Your task to perform on an android device: Add "alienware area 51" to the cart on costco Image 0: 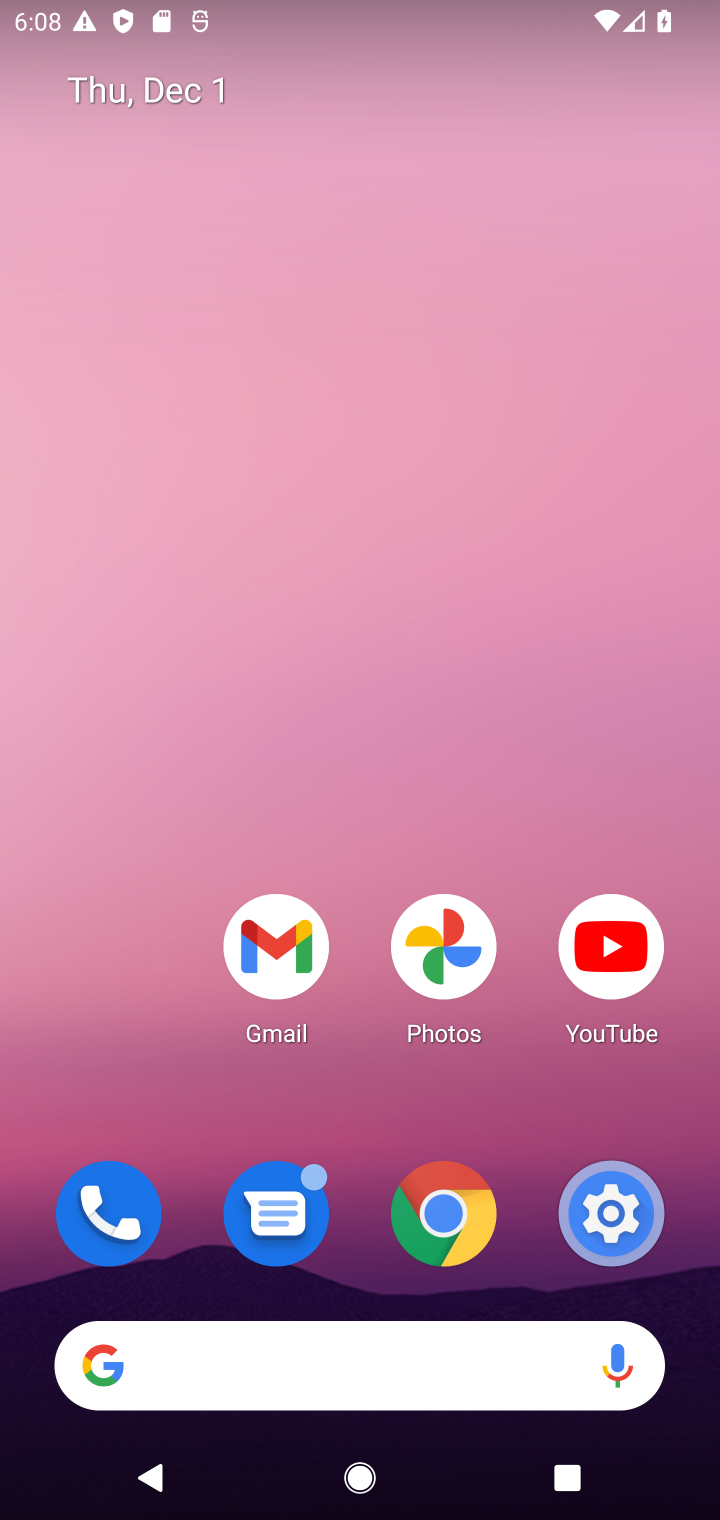
Step 0: click (426, 1368)
Your task to perform on an android device: Add "alienware area 51" to the cart on costco Image 1: 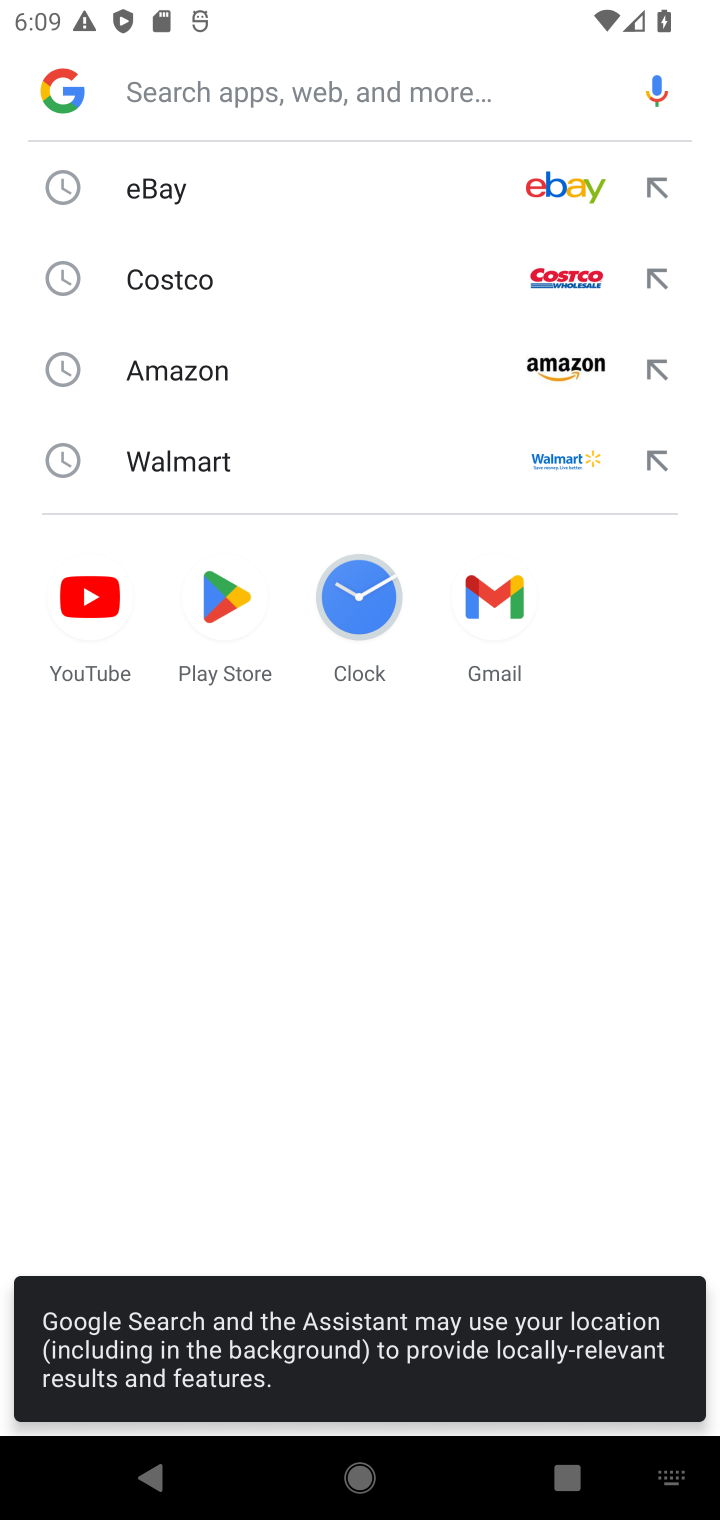
Step 1: click (229, 296)
Your task to perform on an android device: Add "alienware area 51" to the cart on costco Image 2: 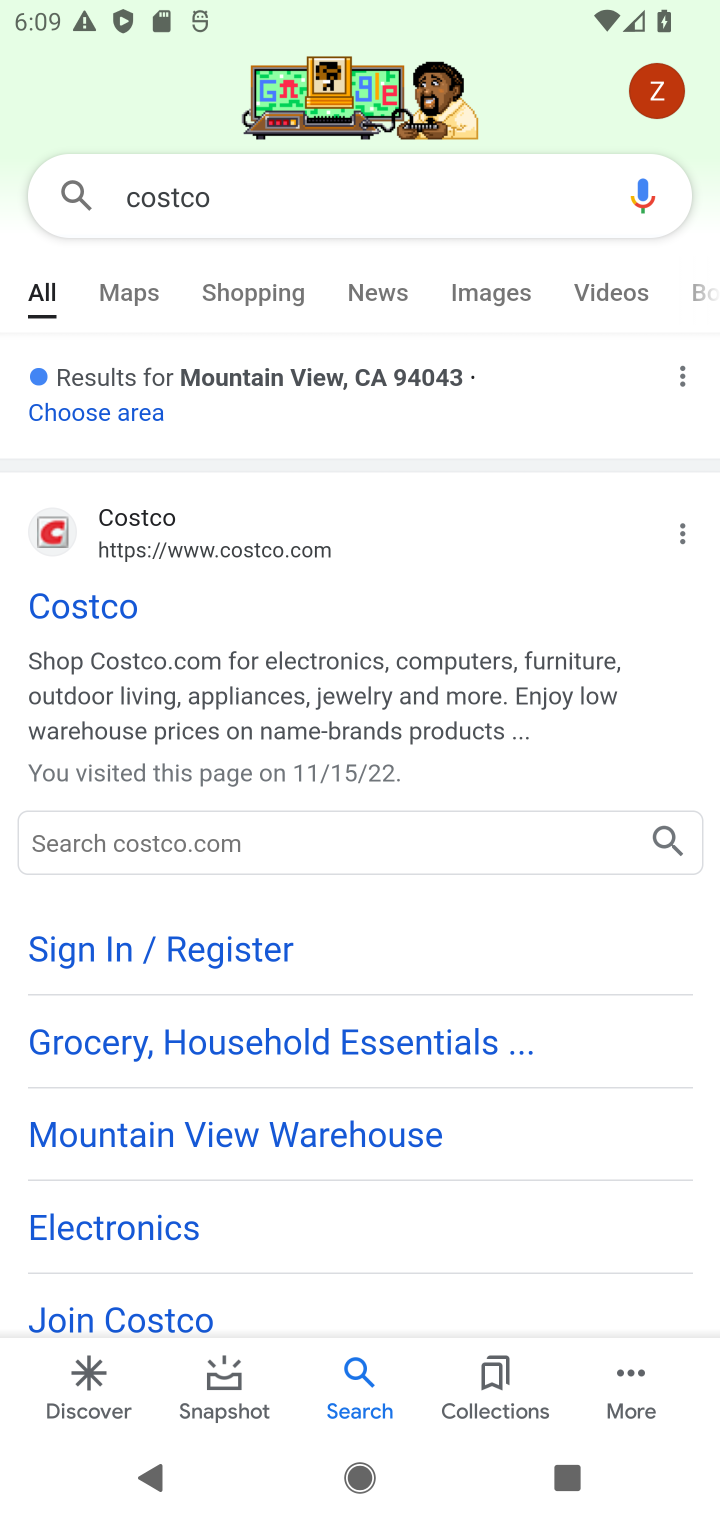
Step 2: click (105, 609)
Your task to perform on an android device: Add "alienware area 51" to the cart on costco Image 3: 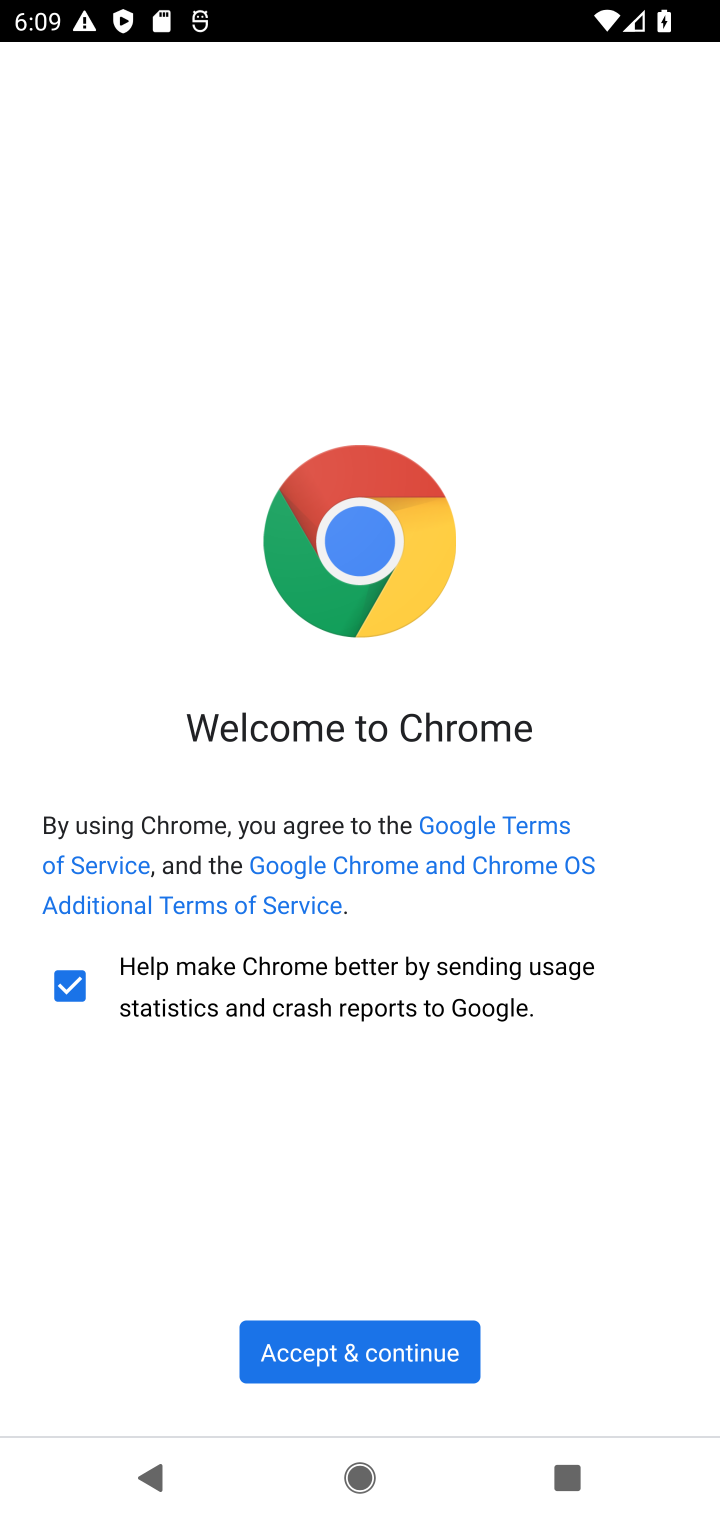
Step 3: click (337, 1350)
Your task to perform on an android device: Add "alienware area 51" to the cart on costco Image 4: 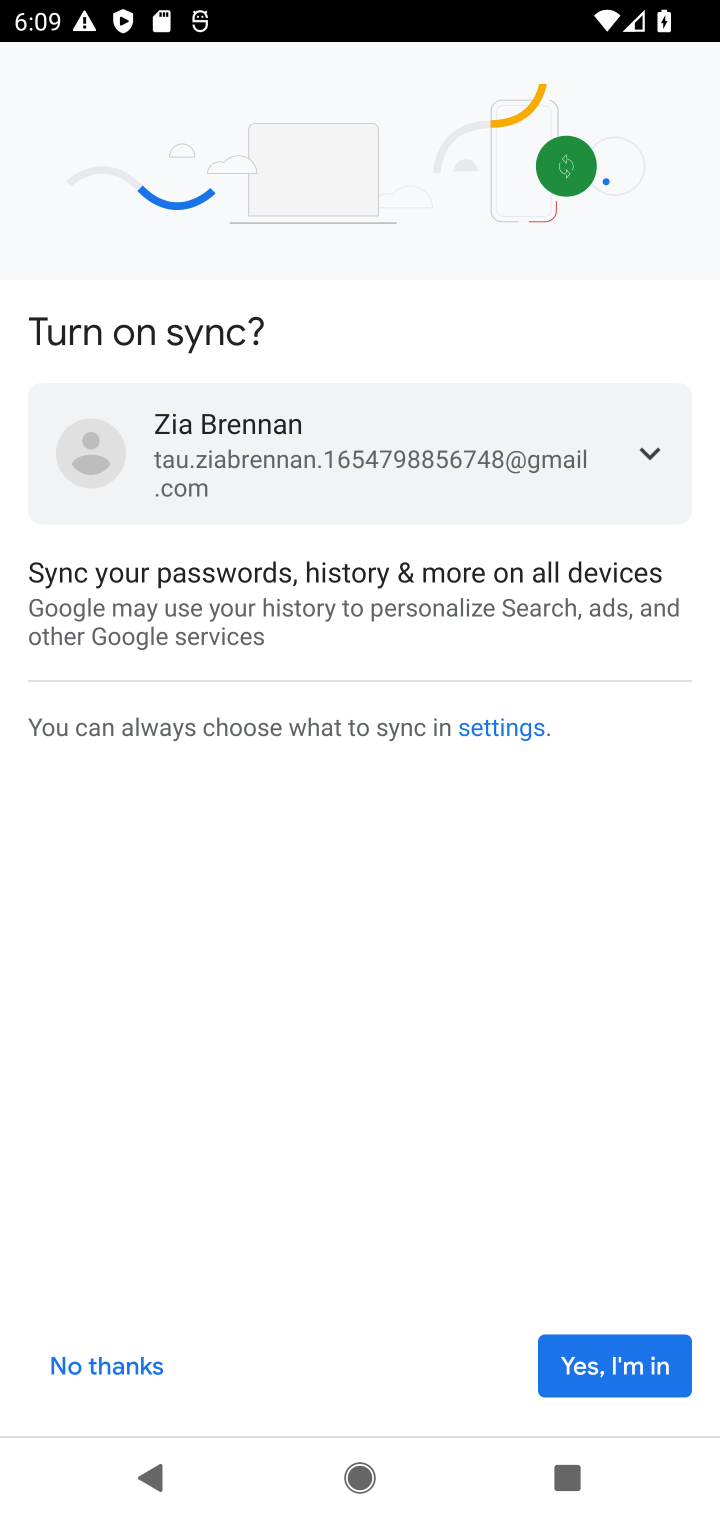
Step 4: click (606, 1389)
Your task to perform on an android device: Add "alienware area 51" to the cart on costco Image 5: 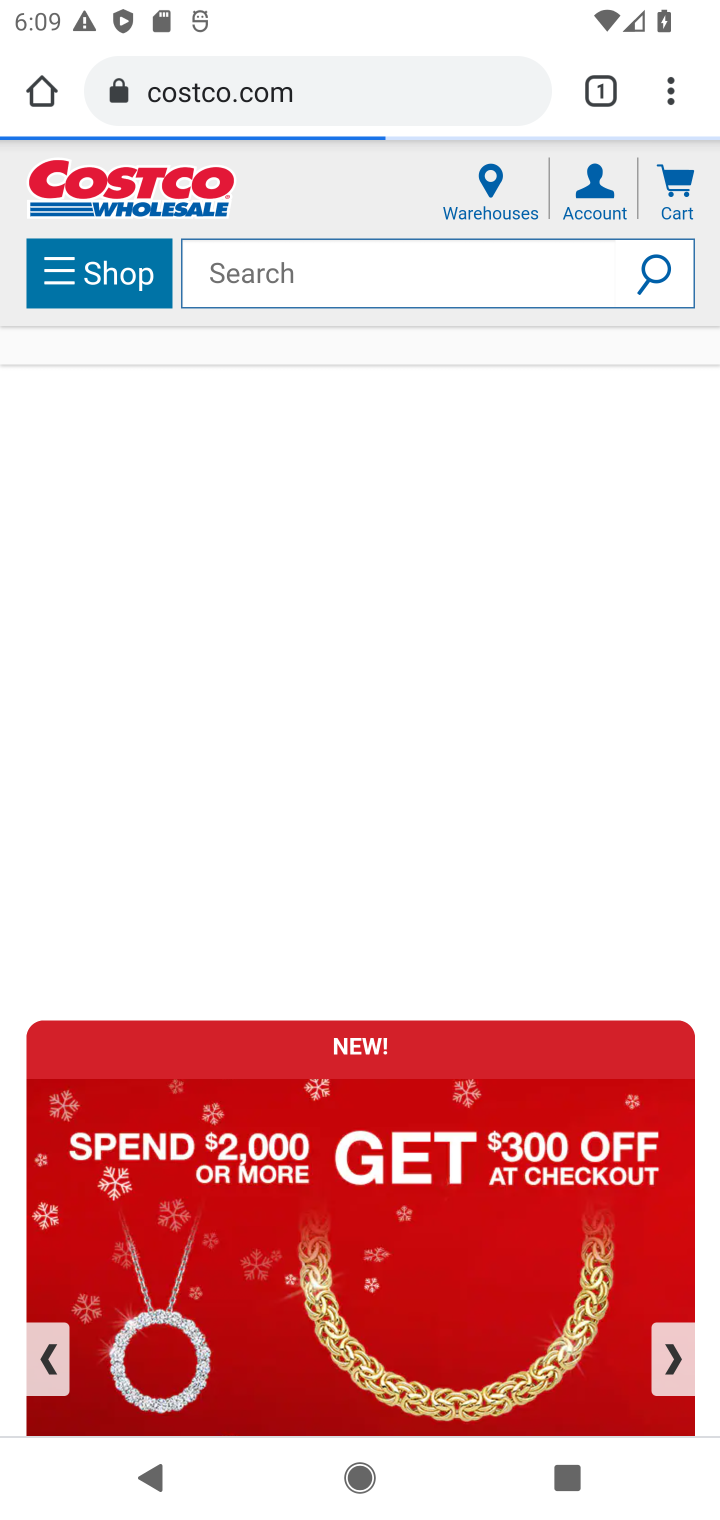
Step 5: click (277, 279)
Your task to perform on an android device: Add "alienware area 51" to the cart on costco Image 6: 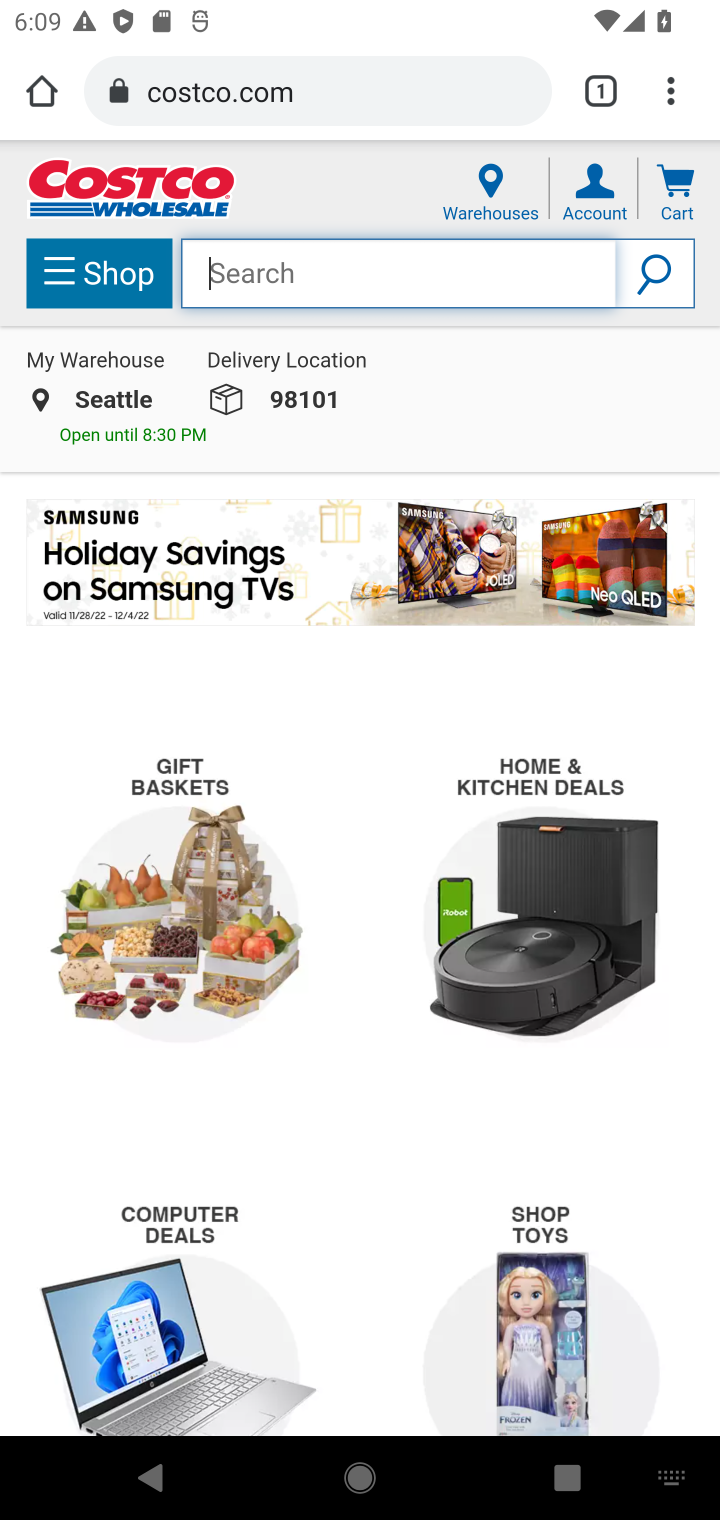
Step 6: type "alienware area 51"
Your task to perform on an android device: Add "alienware area 51" to the cart on costco Image 7: 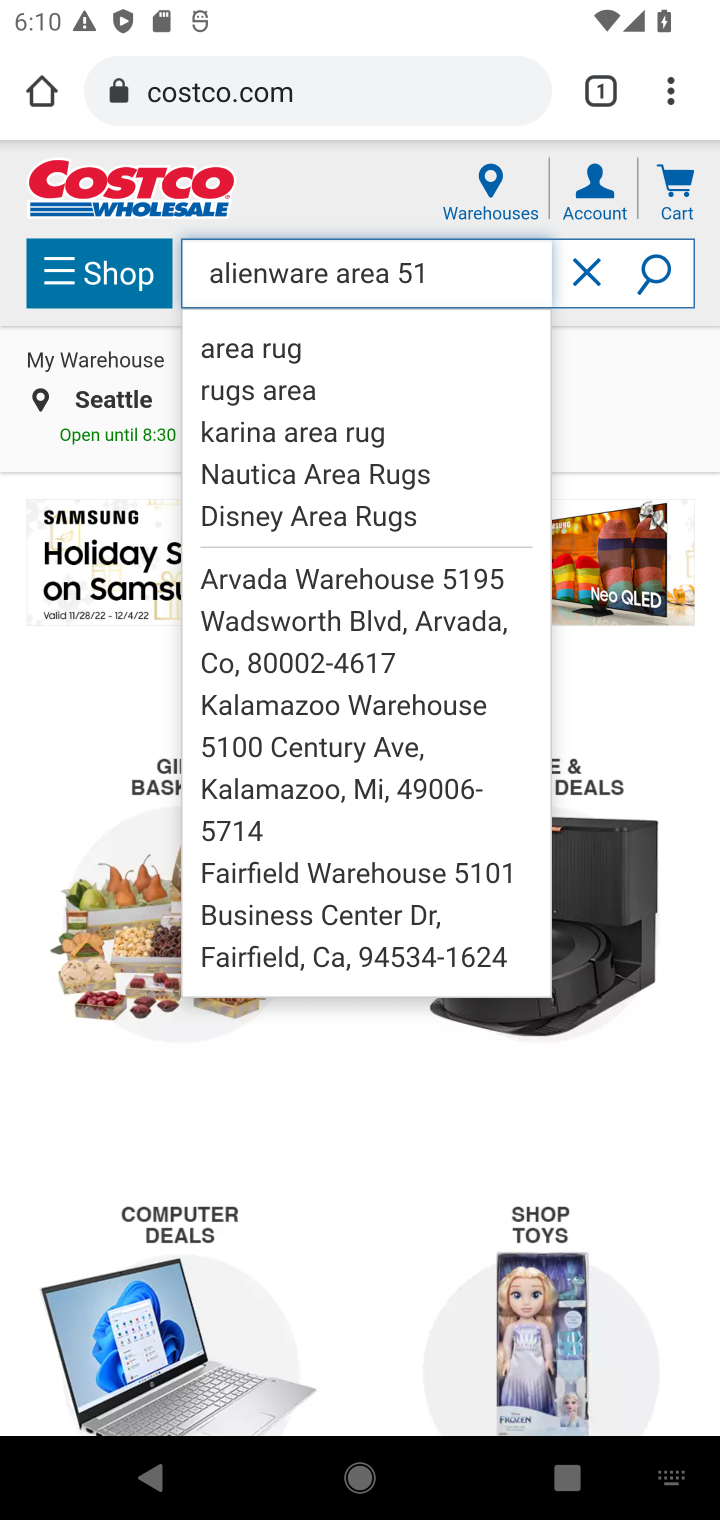
Step 7: click (670, 275)
Your task to perform on an android device: Add "alienware area 51" to the cart on costco Image 8: 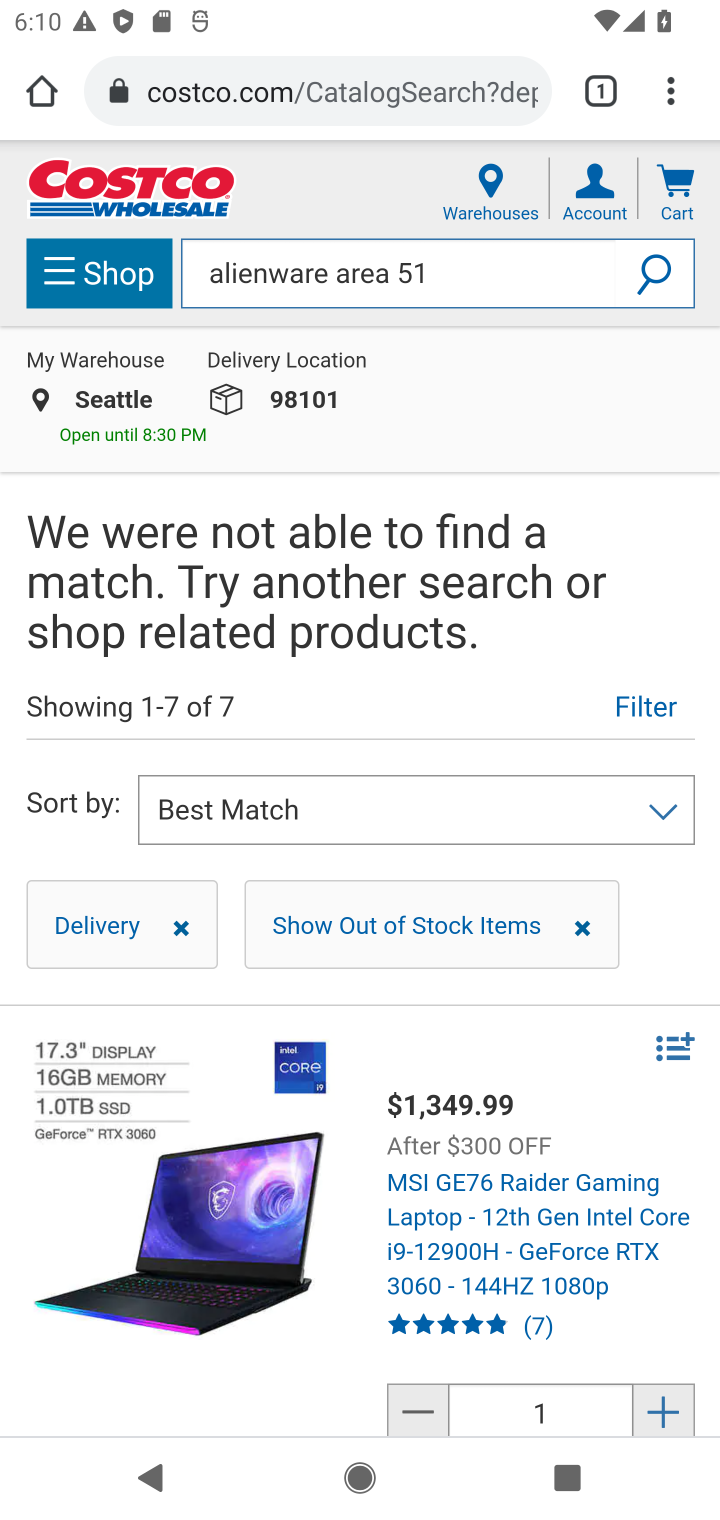
Step 8: drag from (310, 1287) to (338, 623)
Your task to perform on an android device: Add "alienware area 51" to the cart on costco Image 9: 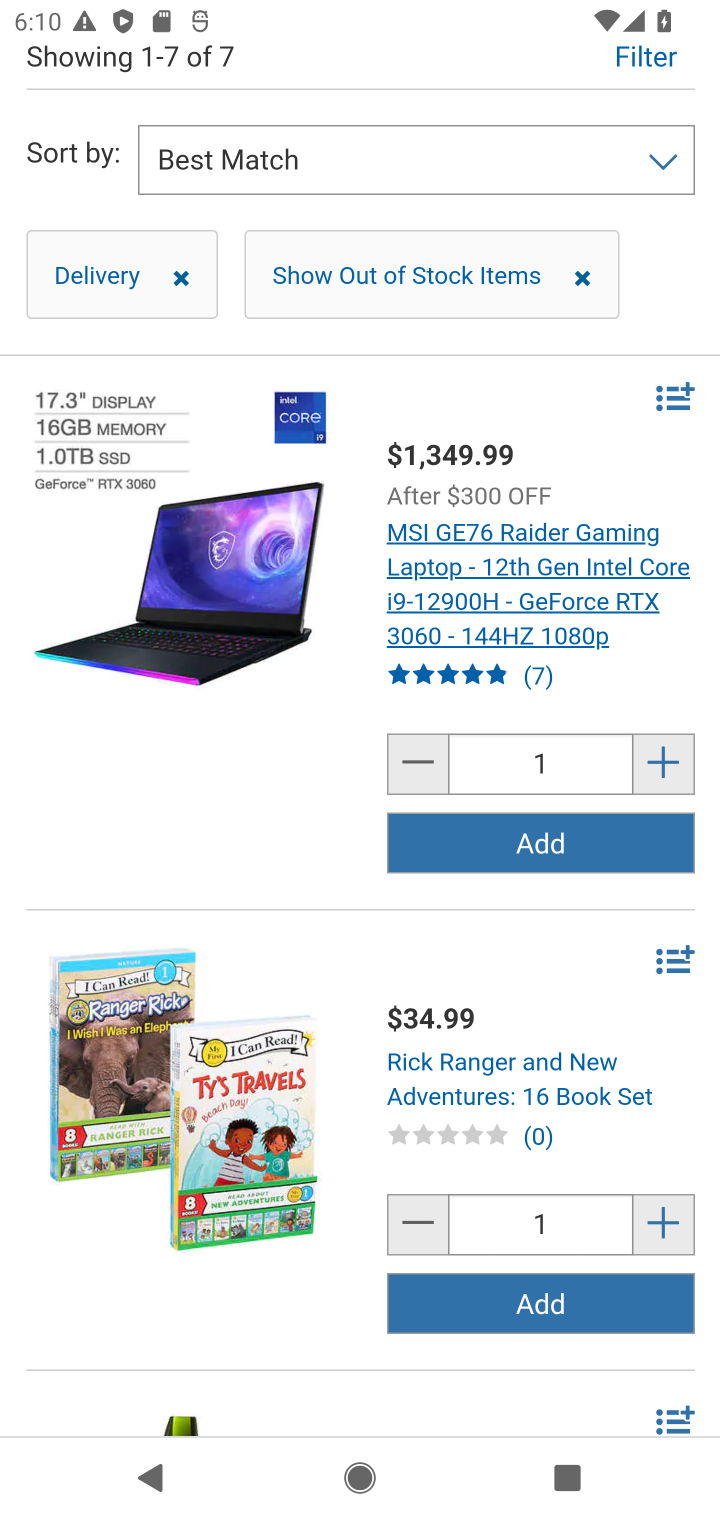
Step 9: click (469, 839)
Your task to perform on an android device: Add "alienware area 51" to the cart on costco Image 10: 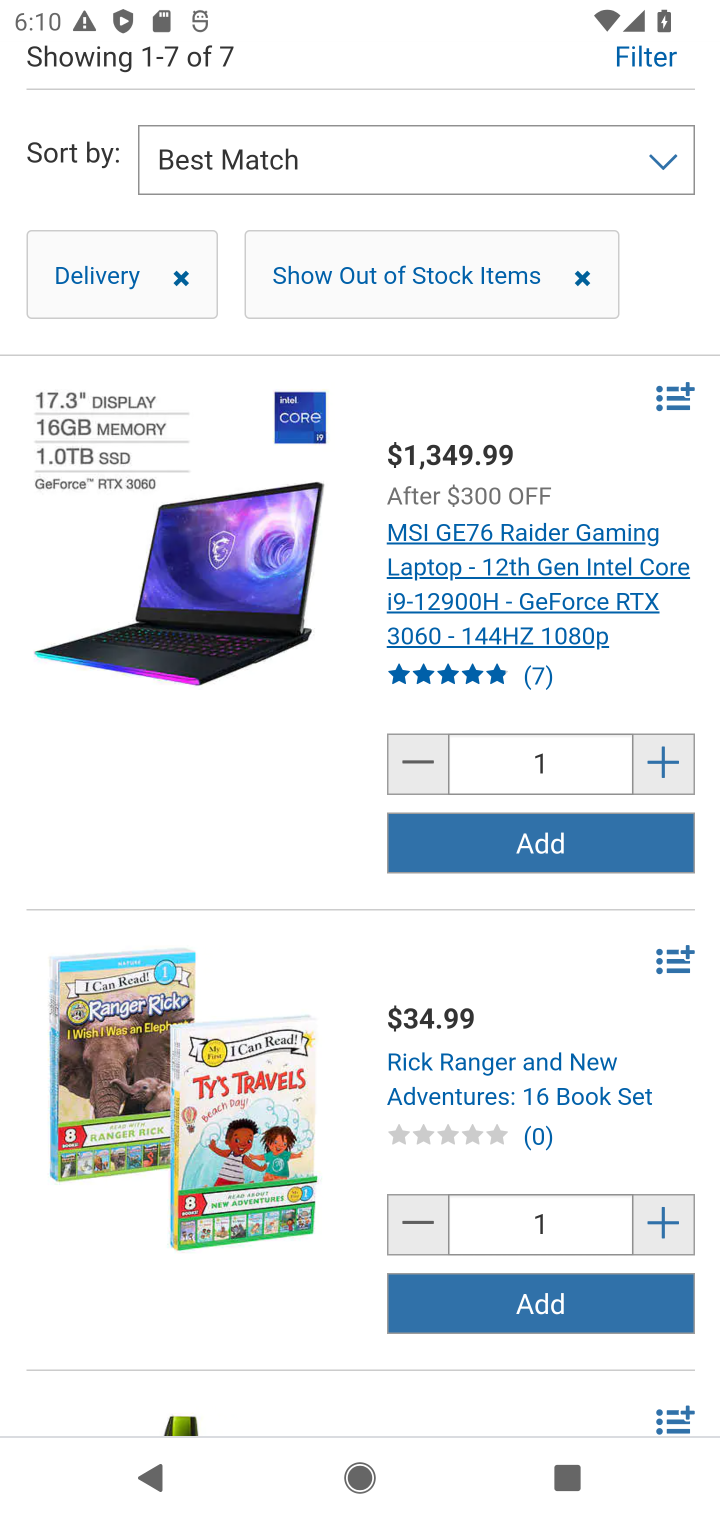
Step 10: task complete